Your task to perform on an android device: snooze an email in the gmail app Image 0: 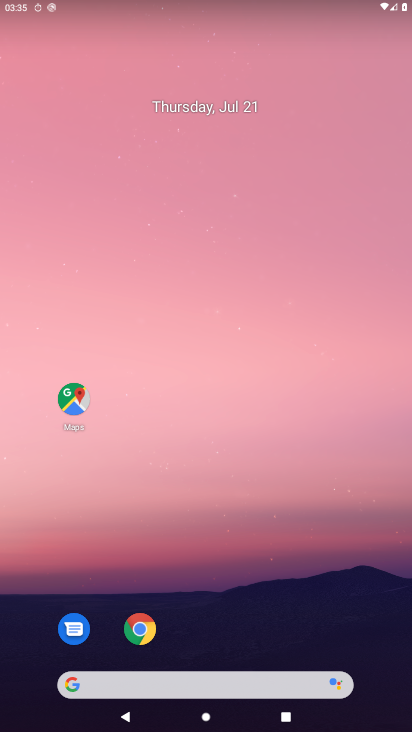
Step 0: drag from (40, 657) to (252, 6)
Your task to perform on an android device: snooze an email in the gmail app Image 1: 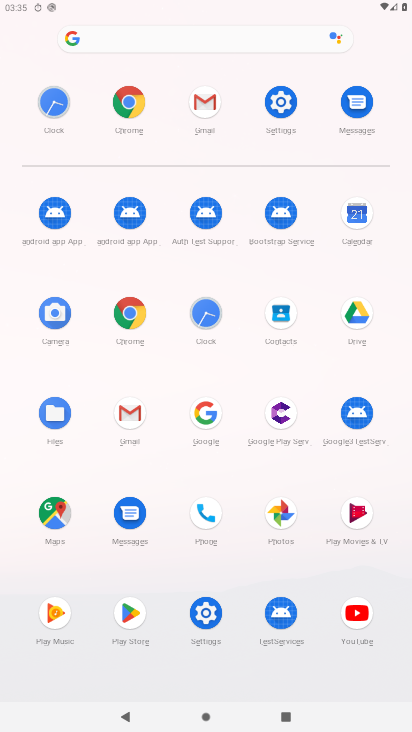
Step 1: click (132, 422)
Your task to perform on an android device: snooze an email in the gmail app Image 2: 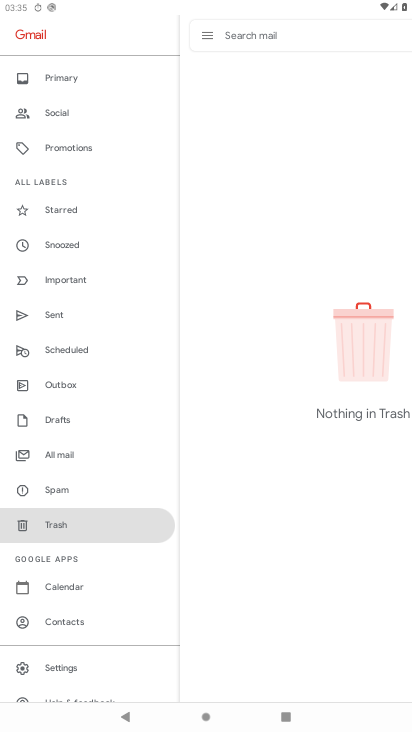
Step 2: click (57, 232)
Your task to perform on an android device: snooze an email in the gmail app Image 3: 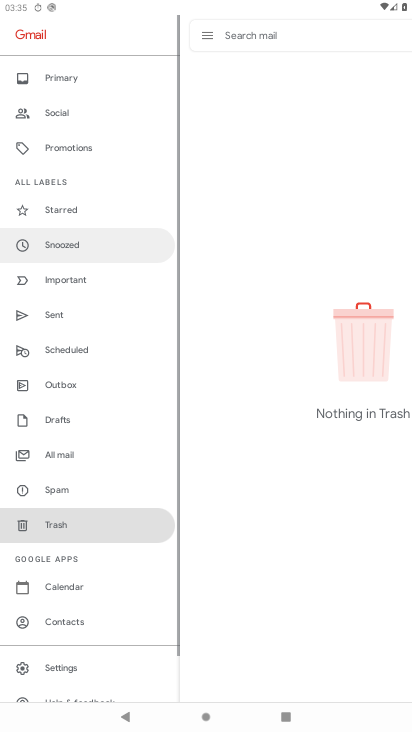
Step 3: click (56, 245)
Your task to perform on an android device: snooze an email in the gmail app Image 4: 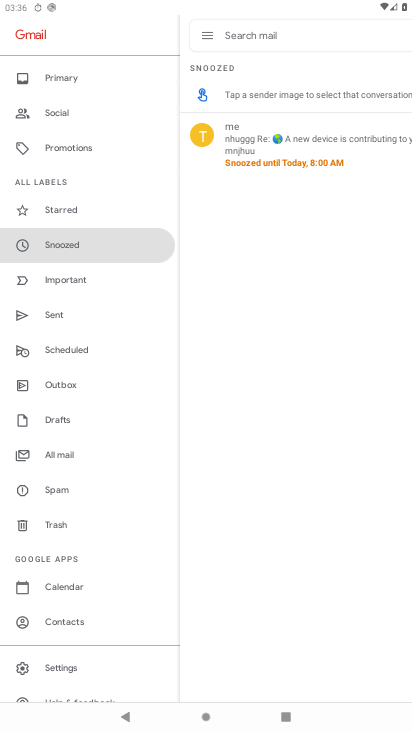
Step 4: task complete